Your task to perform on an android device: Toggle the flashlight Image 0: 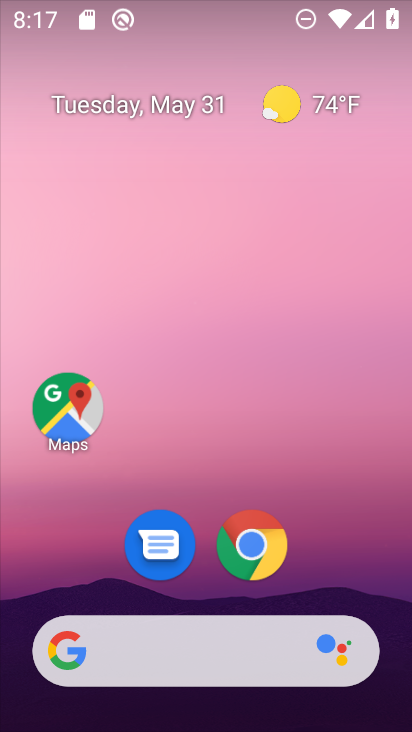
Step 0: drag from (337, 448) to (231, 36)
Your task to perform on an android device: Toggle the flashlight Image 1: 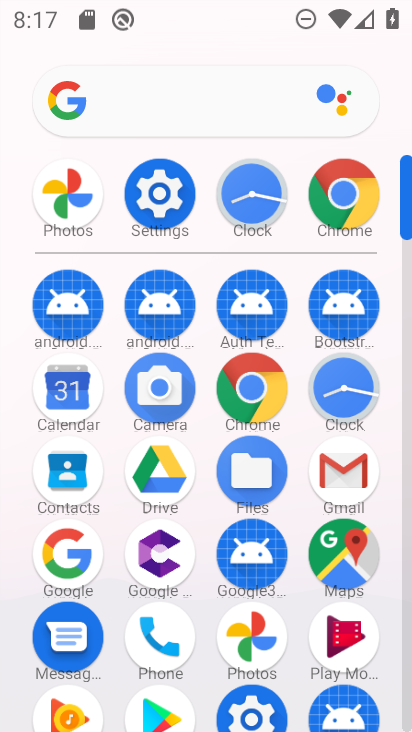
Step 1: drag from (2, 605) to (27, 319)
Your task to perform on an android device: Toggle the flashlight Image 2: 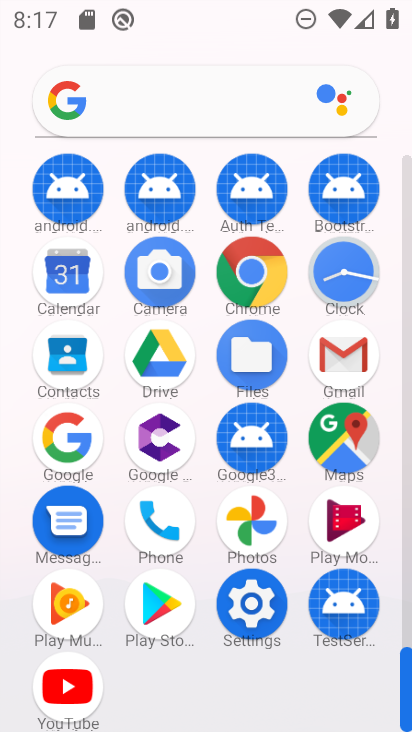
Step 2: click (251, 596)
Your task to perform on an android device: Toggle the flashlight Image 3: 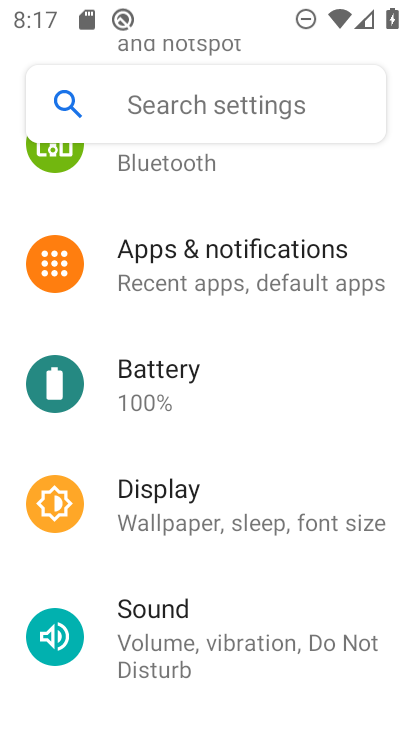
Step 3: drag from (239, 301) to (240, 674)
Your task to perform on an android device: Toggle the flashlight Image 4: 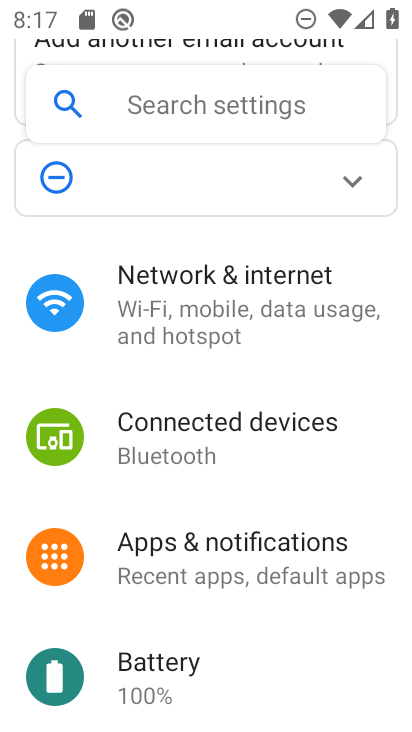
Step 4: click (262, 316)
Your task to perform on an android device: Toggle the flashlight Image 5: 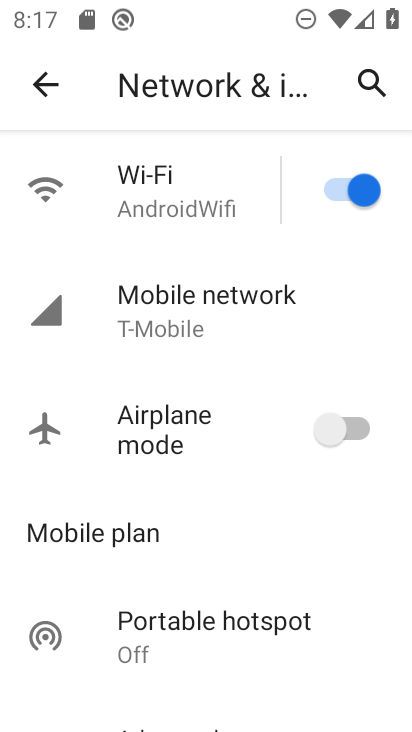
Step 5: drag from (194, 560) to (172, 121)
Your task to perform on an android device: Toggle the flashlight Image 6: 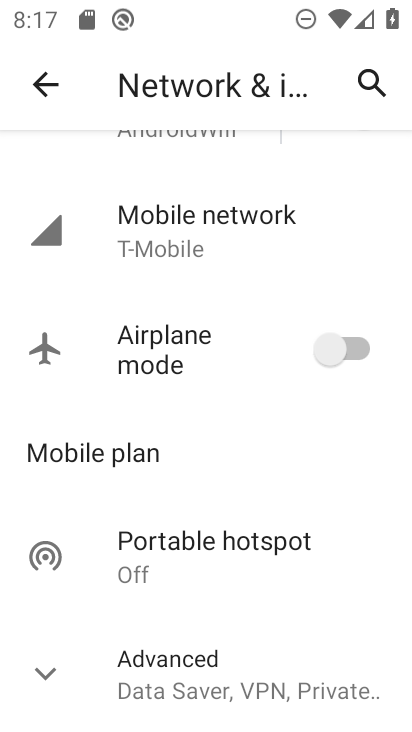
Step 6: drag from (186, 578) to (201, 216)
Your task to perform on an android device: Toggle the flashlight Image 7: 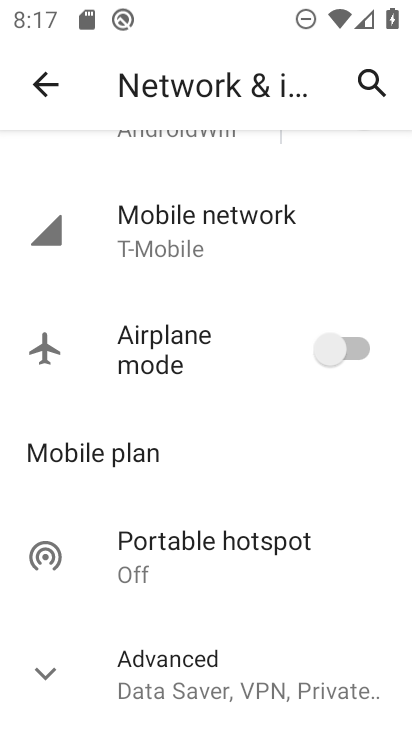
Step 7: click (48, 666)
Your task to perform on an android device: Toggle the flashlight Image 8: 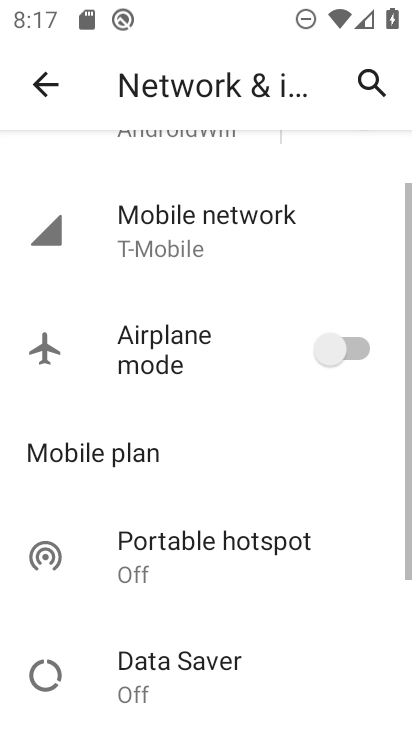
Step 8: task complete